Your task to perform on an android device: Open internet settings Image 0: 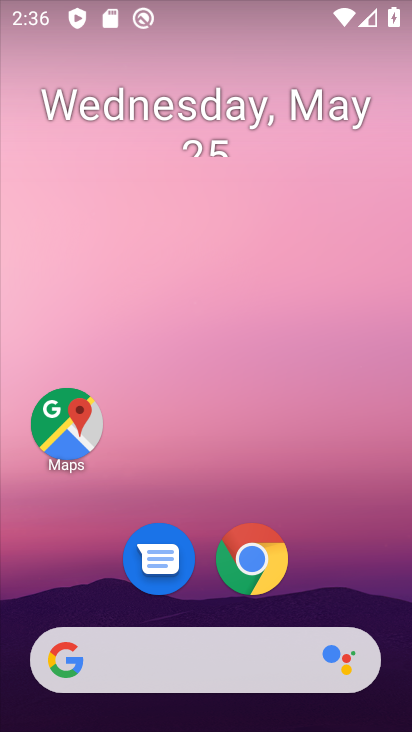
Step 0: press home button
Your task to perform on an android device: Open internet settings Image 1: 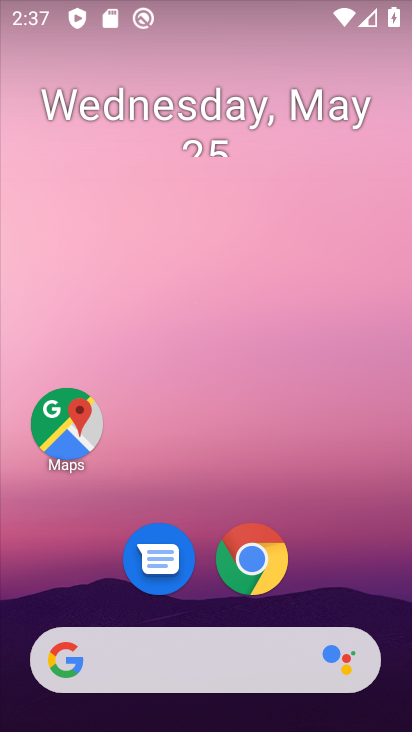
Step 1: drag from (198, 609) to (214, 11)
Your task to perform on an android device: Open internet settings Image 2: 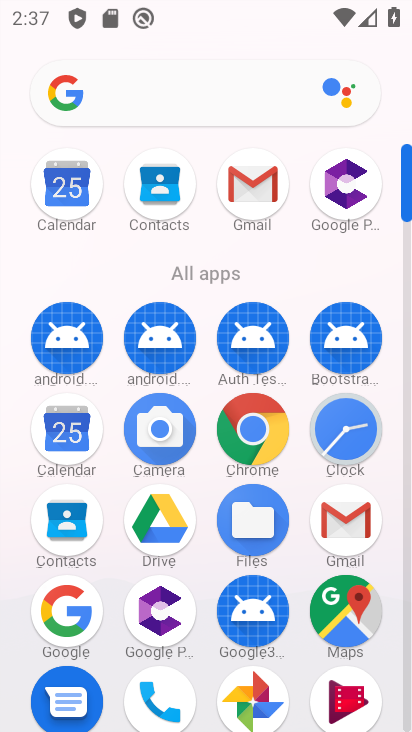
Step 2: drag from (208, 659) to (211, 69)
Your task to perform on an android device: Open internet settings Image 3: 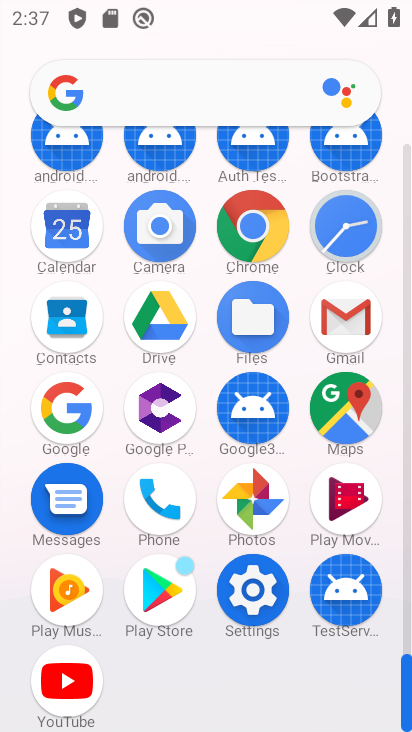
Step 3: click (248, 588)
Your task to perform on an android device: Open internet settings Image 4: 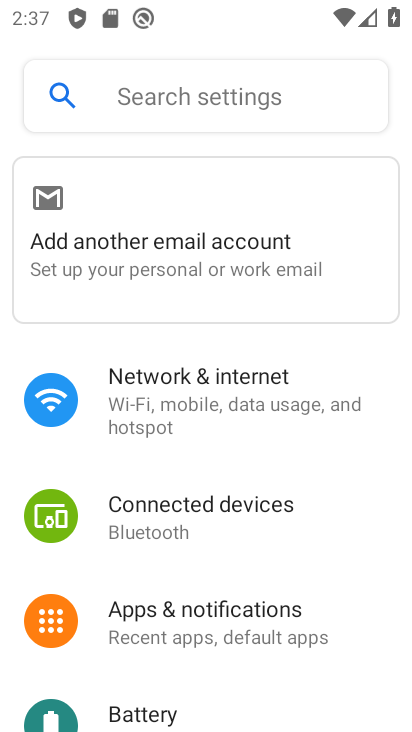
Step 4: click (97, 397)
Your task to perform on an android device: Open internet settings Image 5: 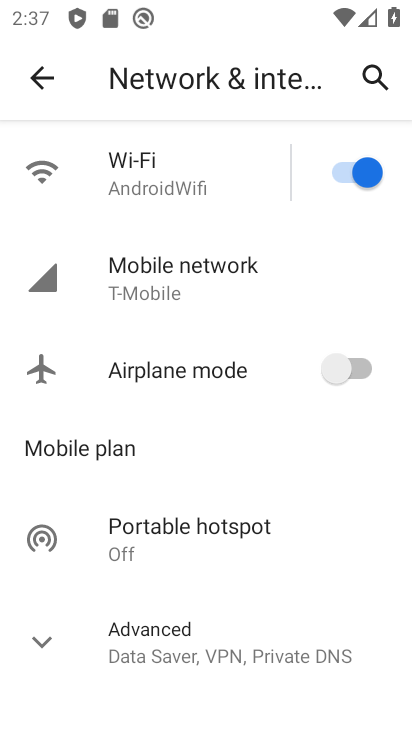
Step 5: click (43, 633)
Your task to perform on an android device: Open internet settings Image 6: 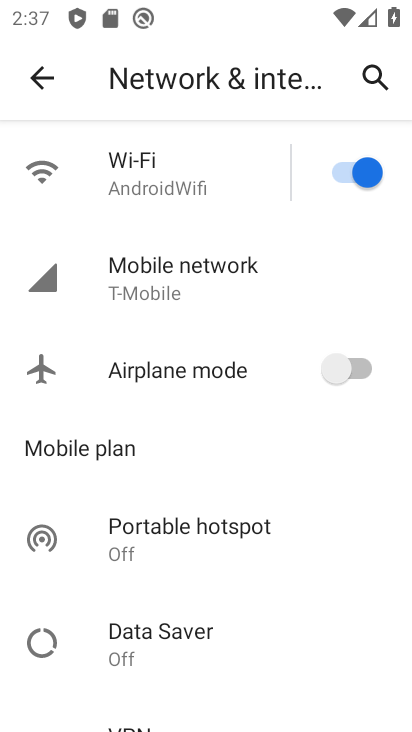
Step 6: task complete